Your task to perform on an android device: Open settings on Google Maps Image 0: 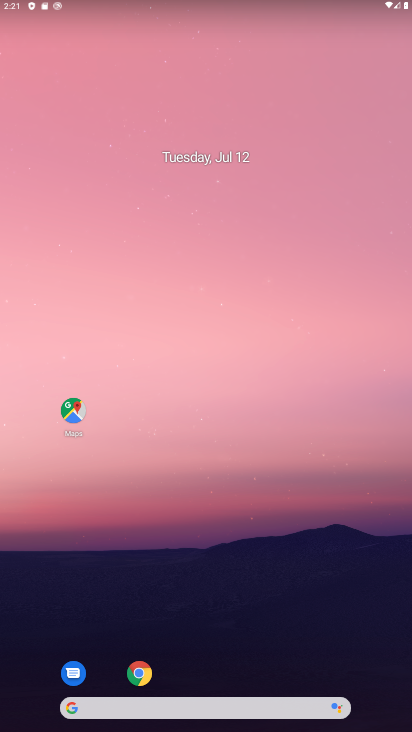
Step 0: drag from (57, 656) to (291, 87)
Your task to perform on an android device: Open settings on Google Maps Image 1: 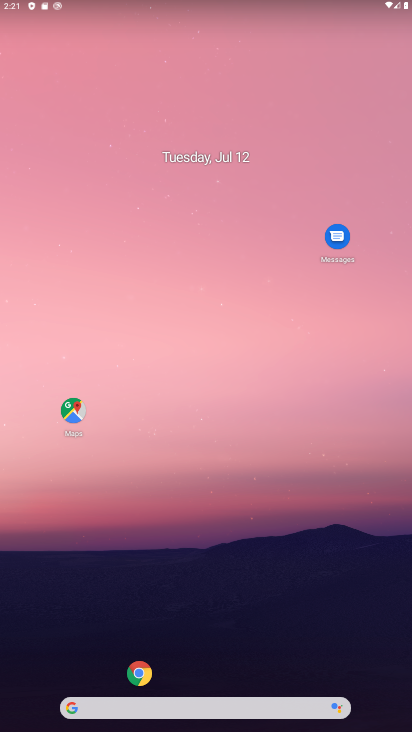
Step 1: click (76, 403)
Your task to perform on an android device: Open settings on Google Maps Image 2: 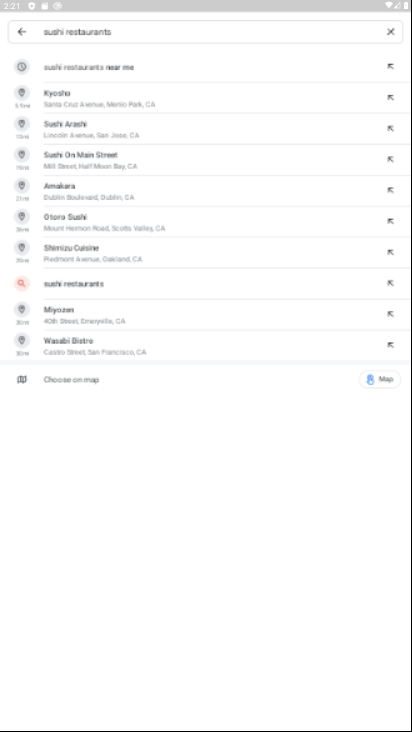
Step 2: click (76, 403)
Your task to perform on an android device: Open settings on Google Maps Image 3: 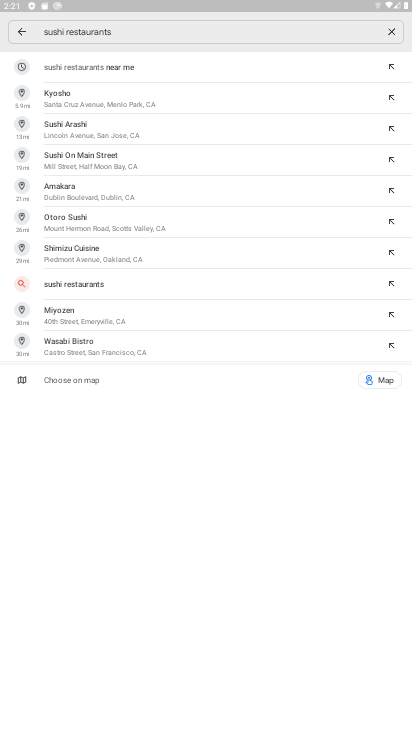
Step 3: click (24, 32)
Your task to perform on an android device: Open settings on Google Maps Image 4: 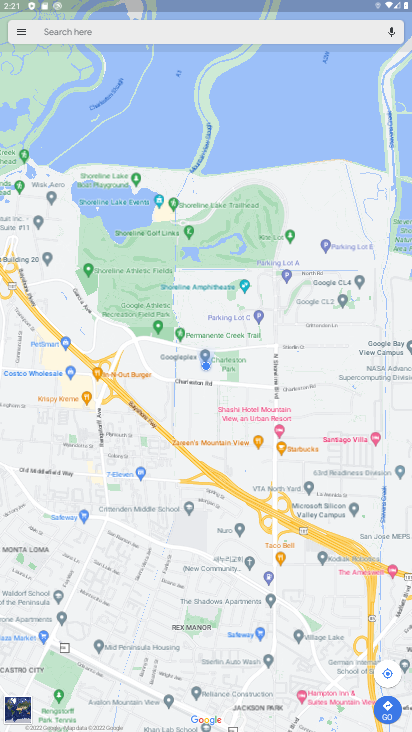
Step 4: click (20, 31)
Your task to perform on an android device: Open settings on Google Maps Image 5: 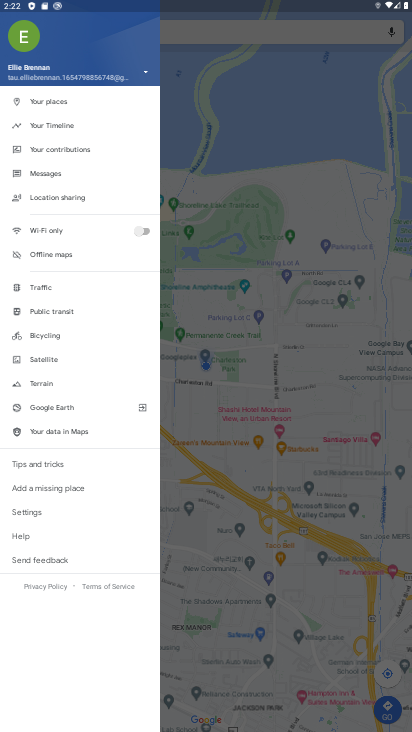
Step 5: click (31, 512)
Your task to perform on an android device: Open settings on Google Maps Image 6: 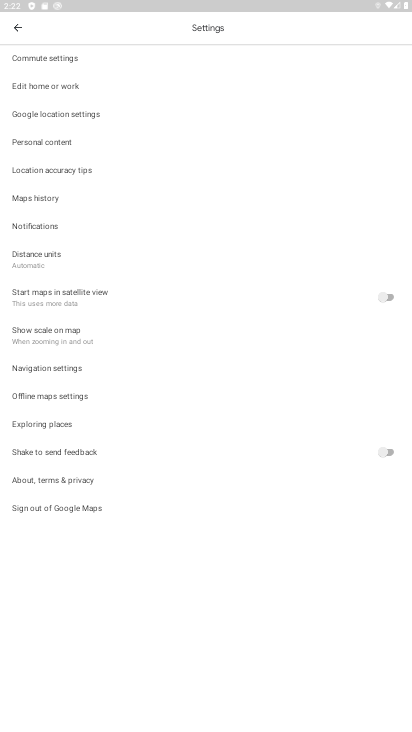
Step 6: task complete